Your task to perform on an android device: change the clock style Image 0: 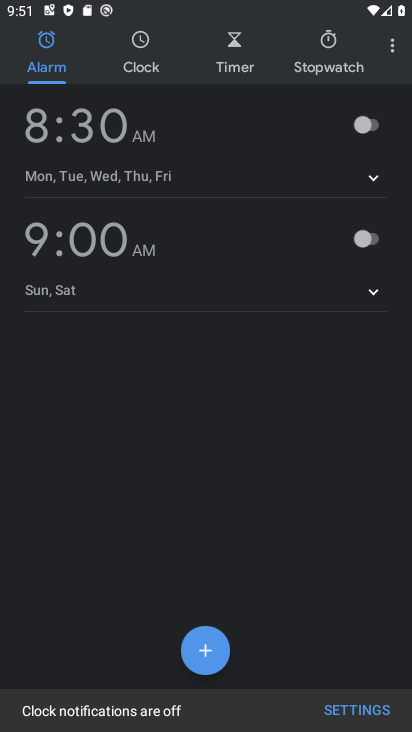
Step 0: press home button
Your task to perform on an android device: change the clock style Image 1: 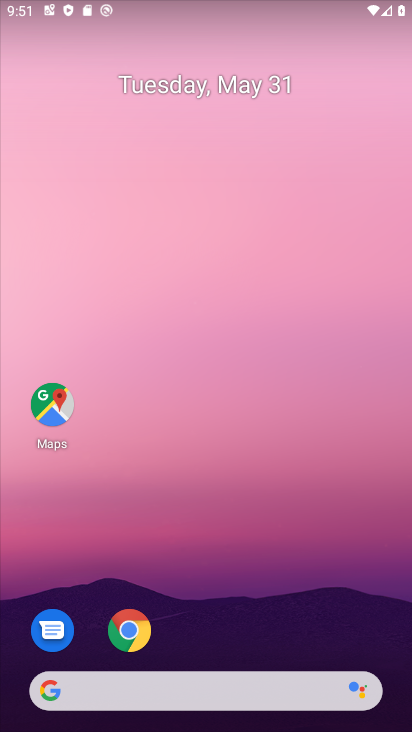
Step 1: drag from (221, 654) to (261, 191)
Your task to perform on an android device: change the clock style Image 2: 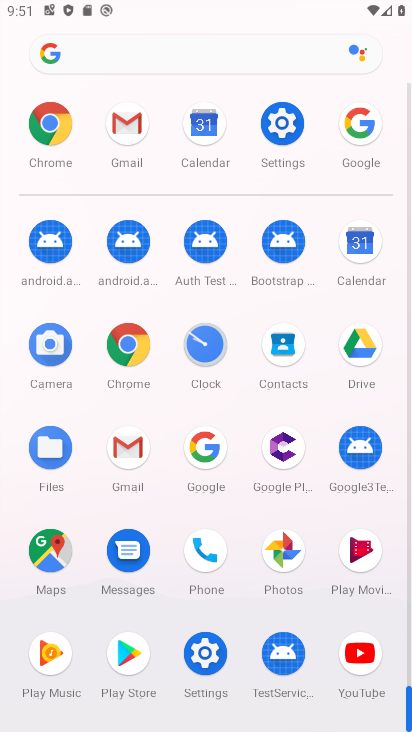
Step 2: click (209, 347)
Your task to perform on an android device: change the clock style Image 3: 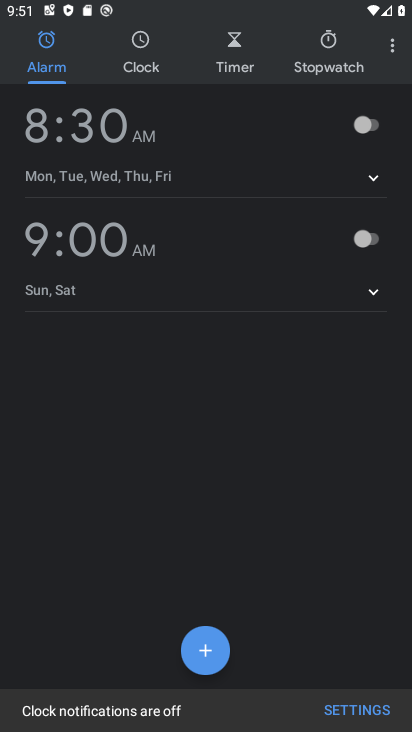
Step 3: click (393, 56)
Your task to perform on an android device: change the clock style Image 4: 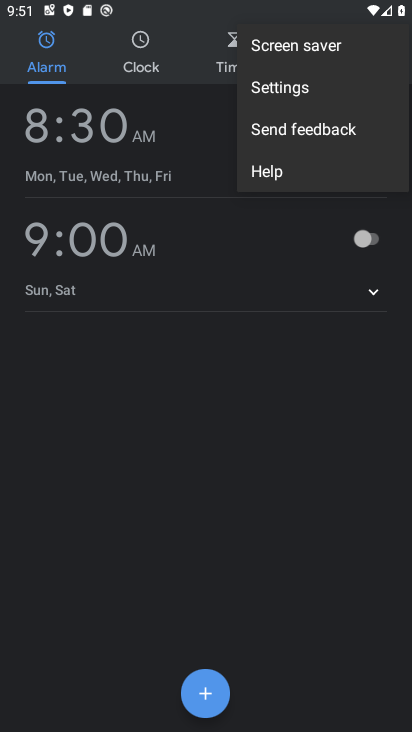
Step 4: click (273, 92)
Your task to perform on an android device: change the clock style Image 5: 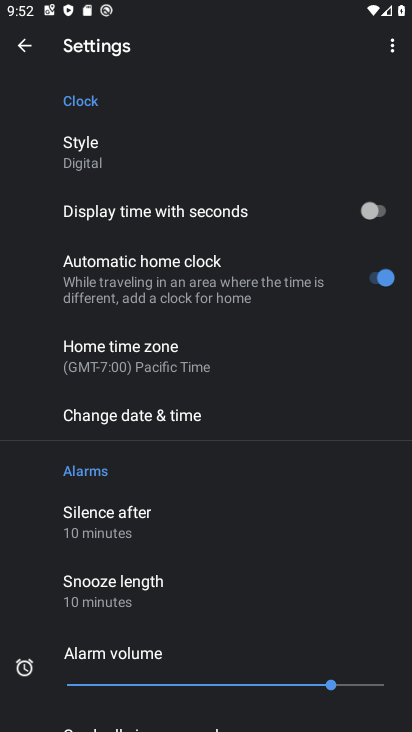
Step 5: click (101, 160)
Your task to perform on an android device: change the clock style Image 6: 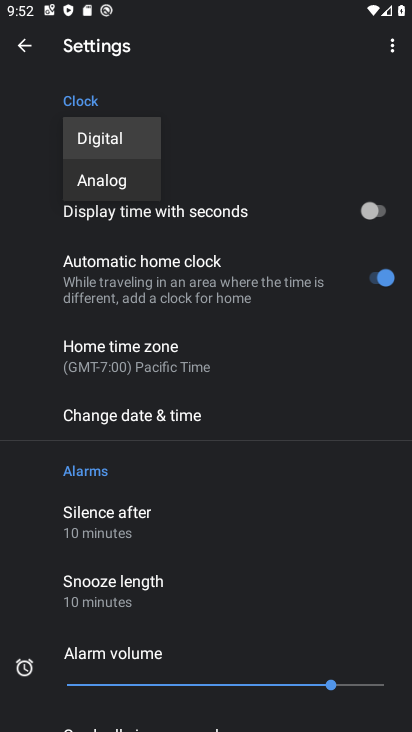
Step 6: click (114, 184)
Your task to perform on an android device: change the clock style Image 7: 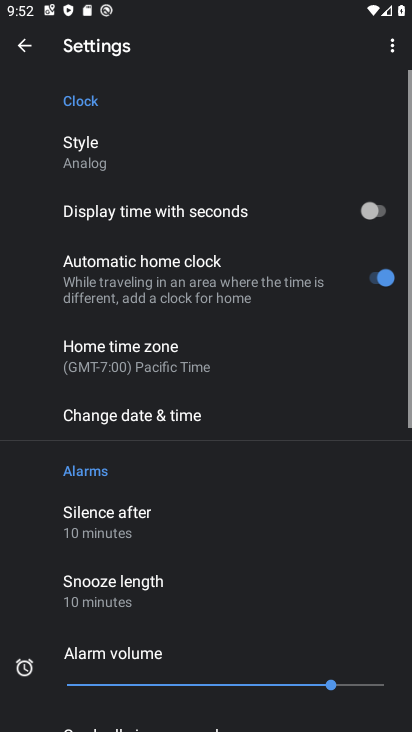
Step 7: task complete